Your task to perform on an android device: turn on wifi Image 0: 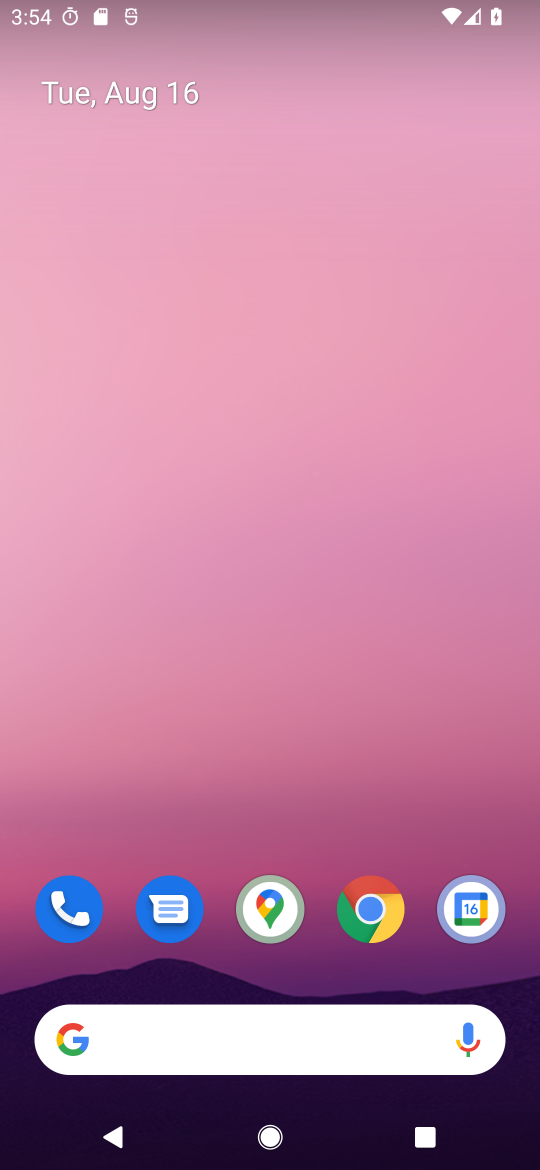
Step 0: drag from (315, 420) to (363, 56)
Your task to perform on an android device: turn on wifi Image 1: 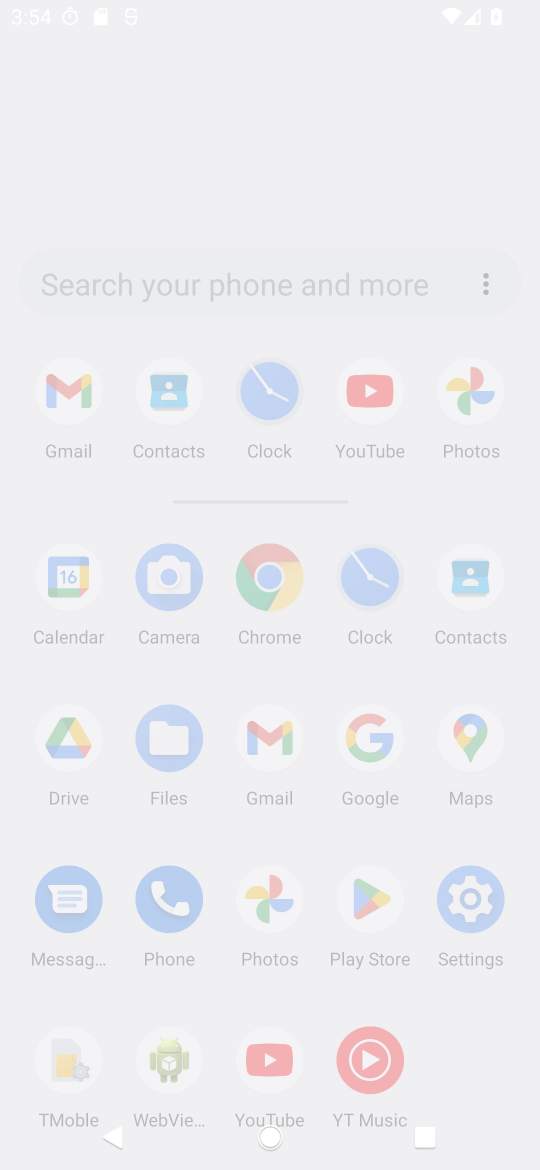
Step 1: click (312, 195)
Your task to perform on an android device: turn on wifi Image 2: 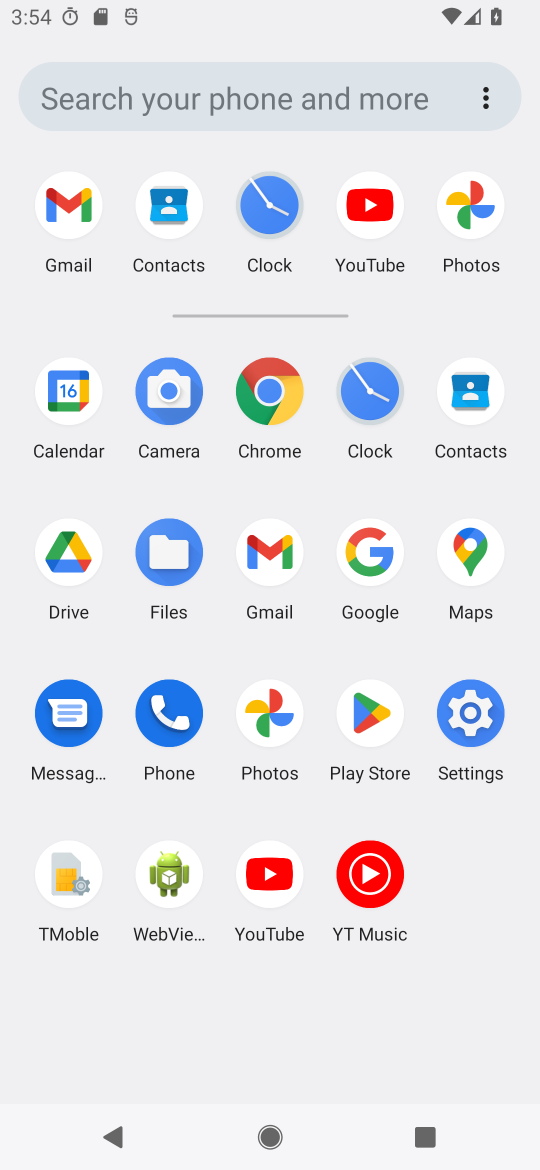
Step 2: click (464, 711)
Your task to perform on an android device: turn on wifi Image 3: 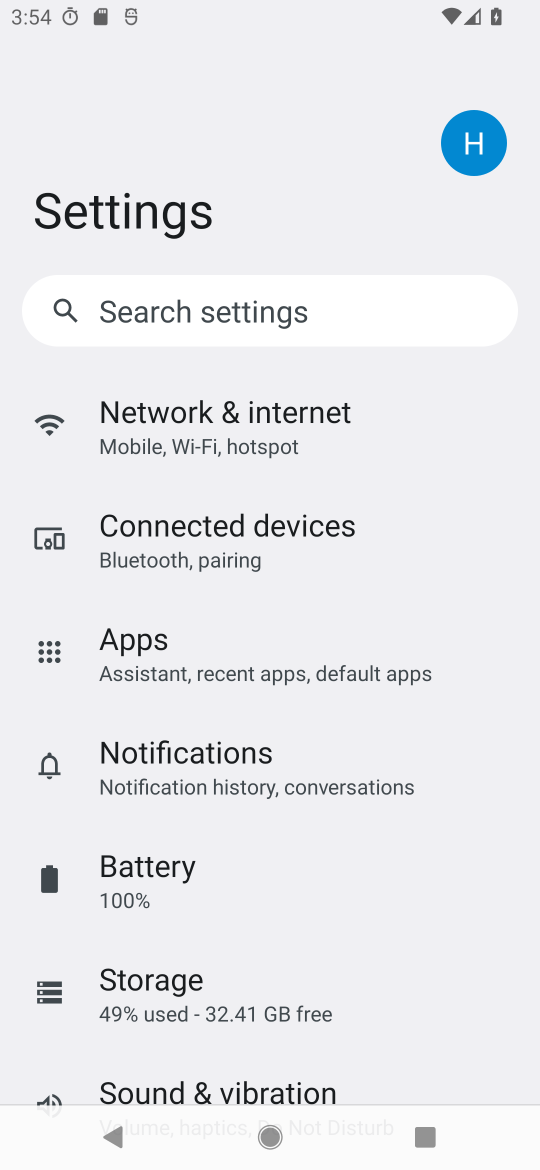
Step 3: click (217, 445)
Your task to perform on an android device: turn on wifi Image 4: 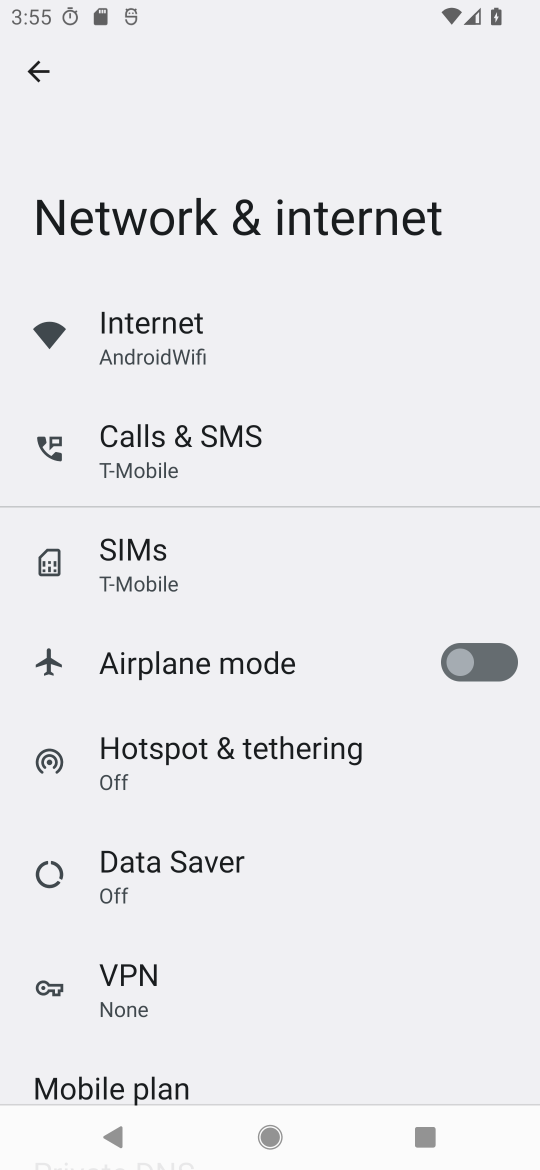
Step 4: click (179, 355)
Your task to perform on an android device: turn on wifi Image 5: 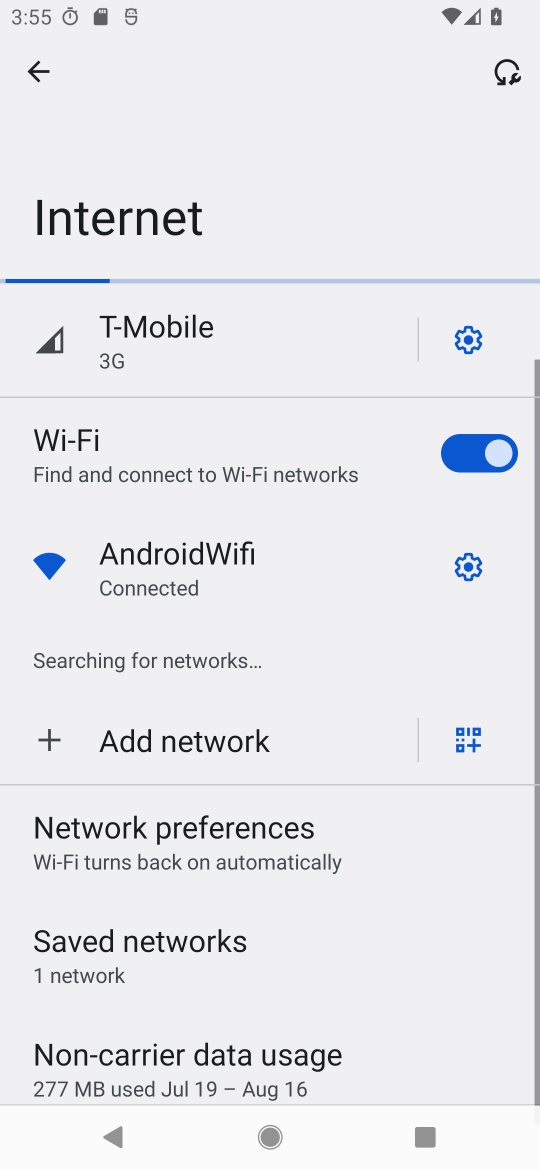
Step 5: click (174, 567)
Your task to perform on an android device: turn on wifi Image 6: 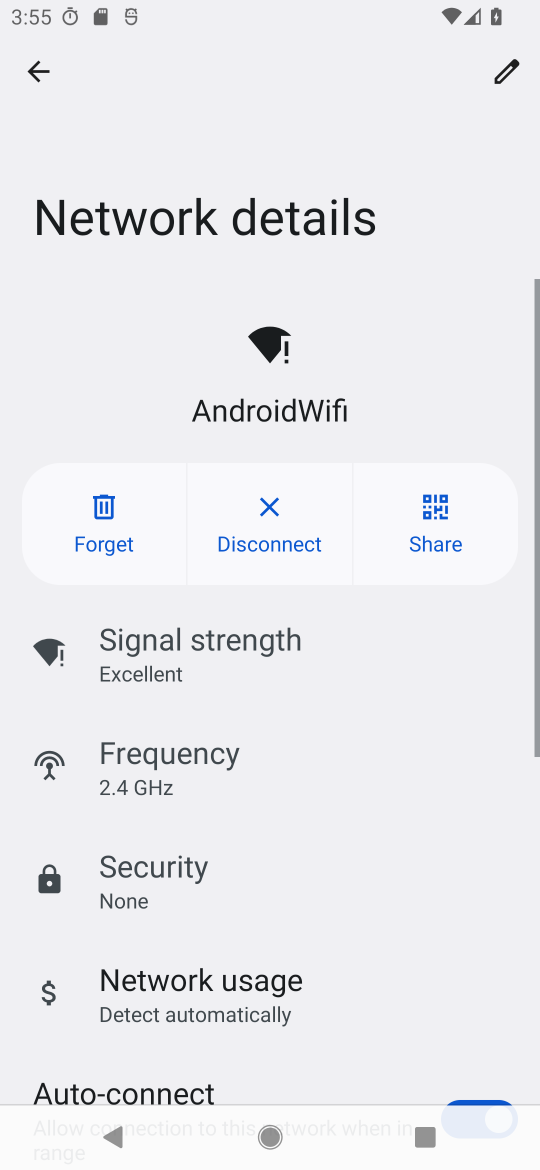
Step 6: task complete